Your task to perform on an android device: Search for "razer thresher" on bestbuy.com, select the first entry, add it to the cart, then select checkout. Image 0: 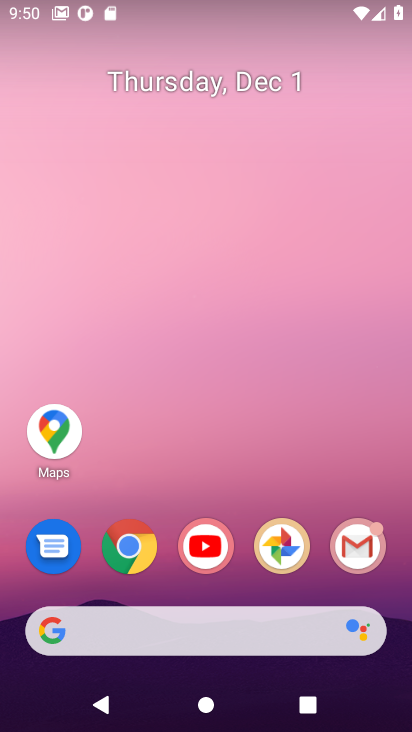
Step 0: click (124, 559)
Your task to perform on an android device: Search for "razer thresher" on bestbuy.com, select the first entry, add it to the cart, then select checkout. Image 1: 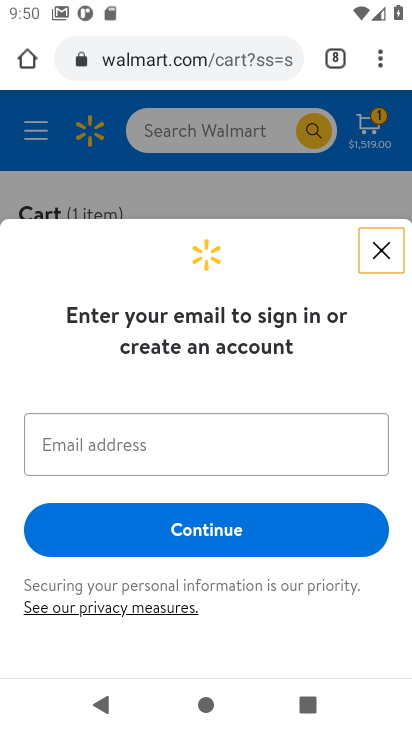
Step 1: click (151, 68)
Your task to perform on an android device: Search for "razer thresher" on bestbuy.com, select the first entry, add it to the cart, then select checkout. Image 2: 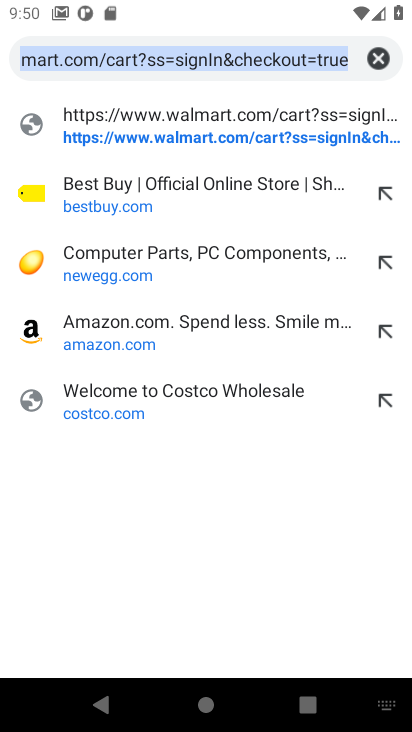
Step 2: click (115, 193)
Your task to perform on an android device: Search for "razer thresher" on bestbuy.com, select the first entry, add it to the cart, then select checkout. Image 3: 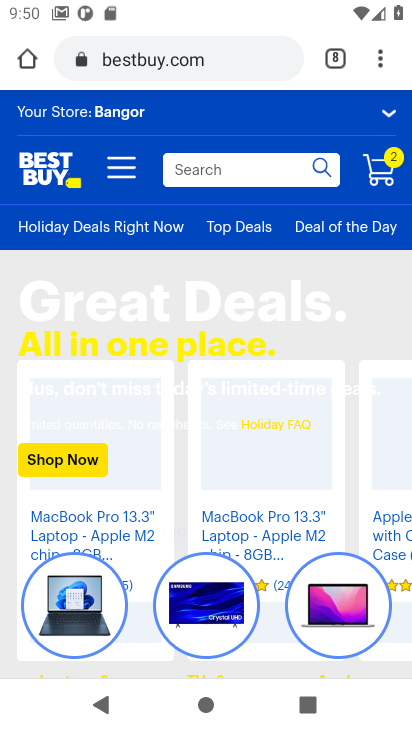
Step 3: click (208, 165)
Your task to perform on an android device: Search for "razer thresher" on bestbuy.com, select the first entry, add it to the cart, then select checkout. Image 4: 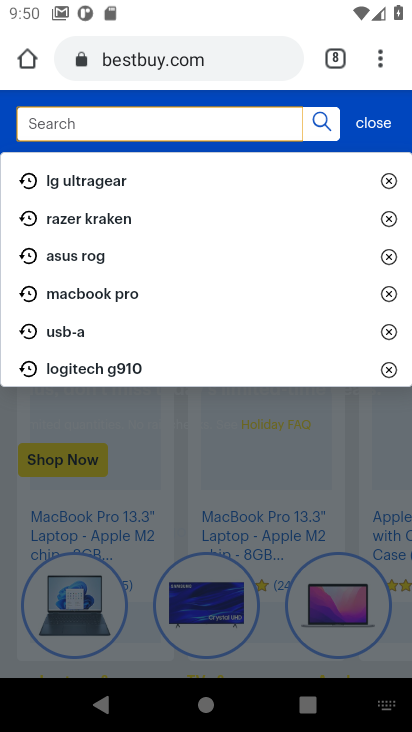
Step 4: type "razer thresher"
Your task to perform on an android device: Search for "razer thresher" on bestbuy.com, select the first entry, add it to the cart, then select checkout. Image 5: 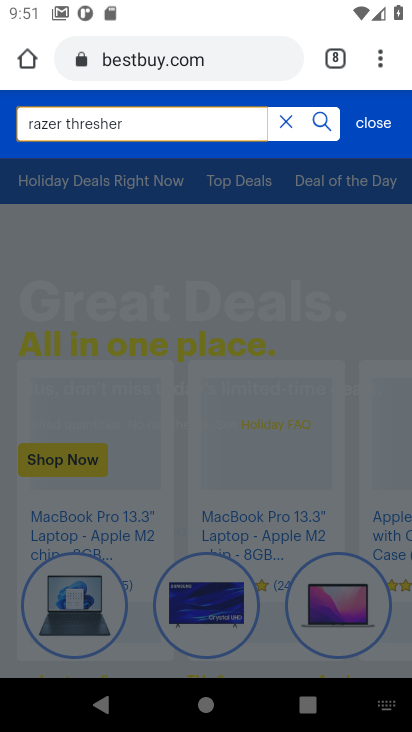
Step 5: click (326, 122)
Your task to perform on an android device: Search for "razer thresher" on bestbuy.com, select the first entry, add it to the cart, then select checkout. Image 6: 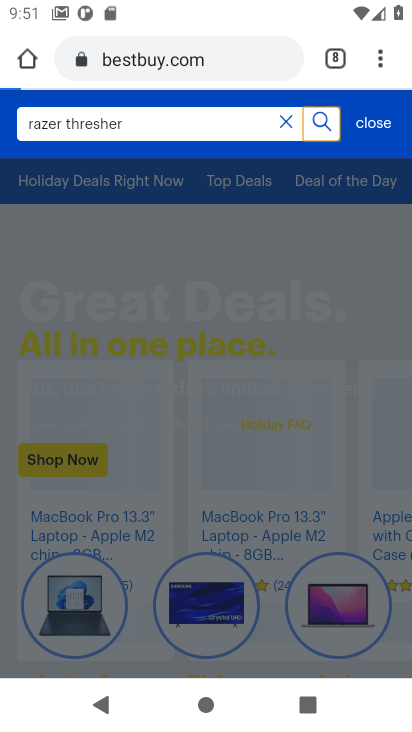
Step 6: click (326, 120)
Your task to perform on an android device: Search for "razer thresher" on bestbuy.com, select the first entry, add it to the cart, then select checkout. Image 7: 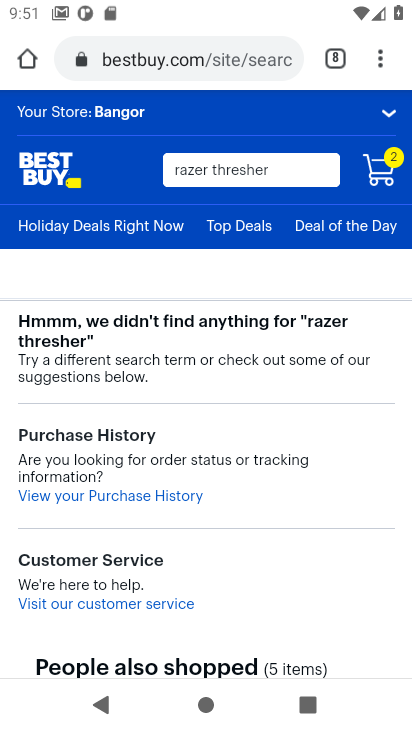
Step 7: task complete